Your task to perform on an android device: turn off airplane mode Image 0: 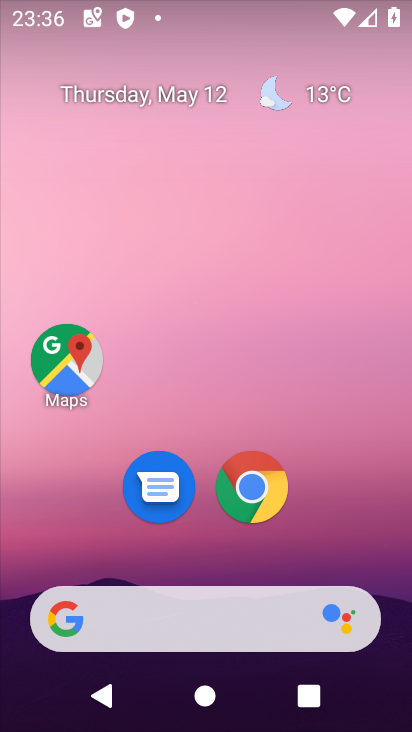
Step 0: drag from (167, 15) to (200, 634)
Your task to perform on an android device: turn off airplane mode Image 1: 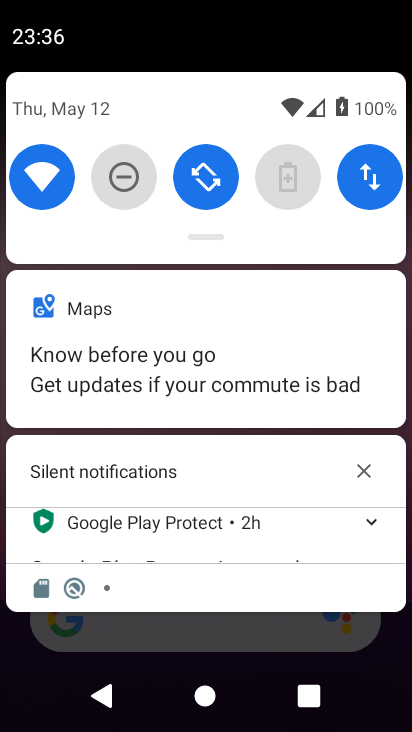
Step 1: task complete